Your task to perform on an android device: Open Yahoo.com Image 0: 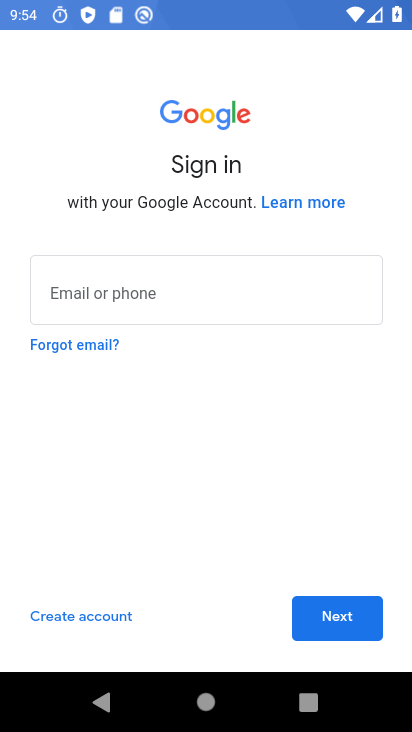
Step 0: press home button
Your task to perform on an android device: Open Yahoo.com Image 1: 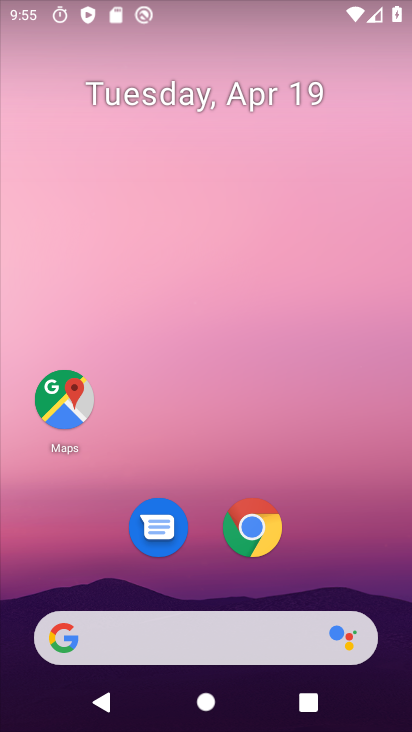
Step 1: drag from (257, 653) to (315, 172)
Your task to perform on an android device: Open Yahoo.com Image 2: 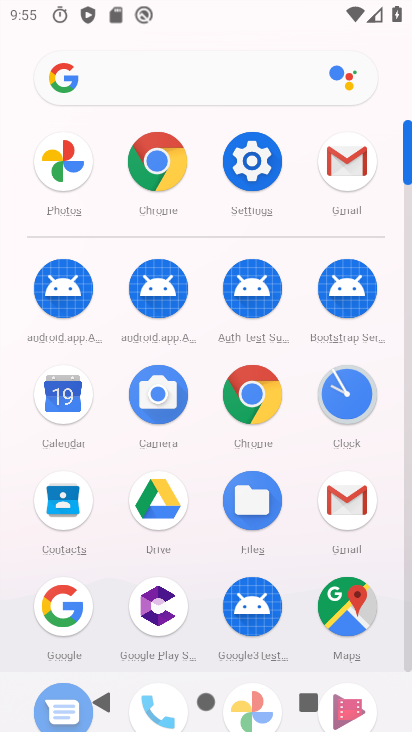
Step 2: click (164, 176)
Your task to perform on an android device: Open Yahoo.com Image 3: 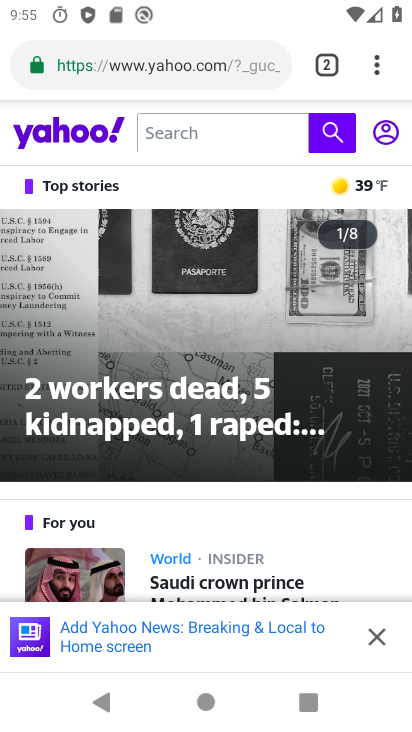
Step 3: click (183, 73)
Your task to perform on an android device: Open Yahoo.com Image 4: 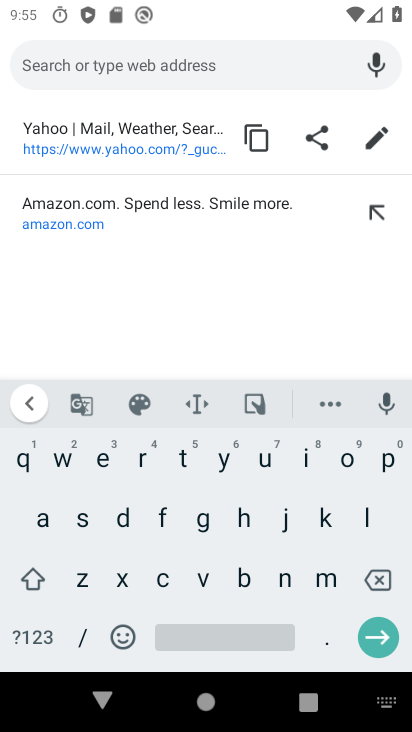
Step 4: click (131, 126)
Your task to perform on an android device: Open Yahoo.com Image 5: 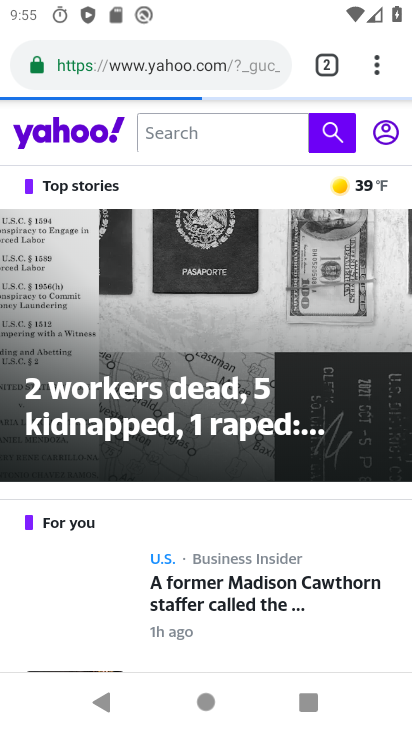
Step 5: task complete